Your task to perform on an android device: turn notification dots on Image 0: 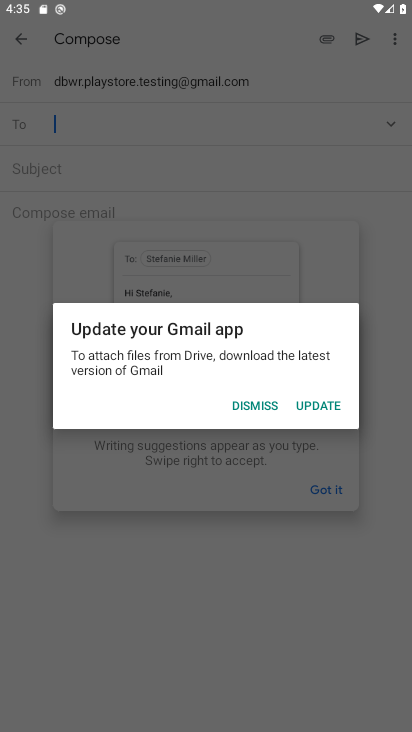
Step 0: press home button
Your task to perform on an android device: turn notification dots on Image 1: 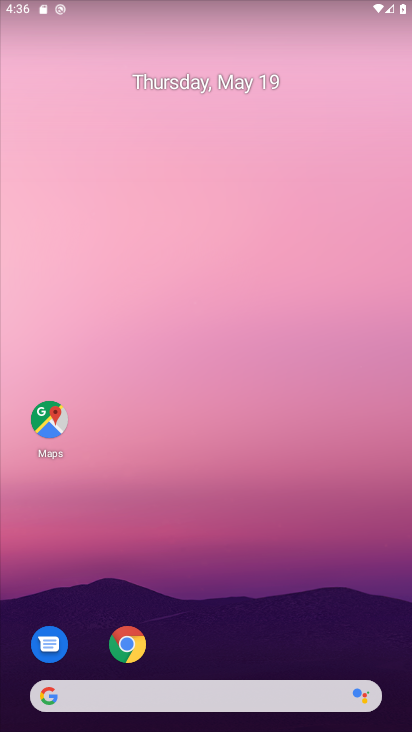
Step 1: drag from (278, 542) to (367, 17)
Your task to perform on an android device: turn notification dots on Image 2: 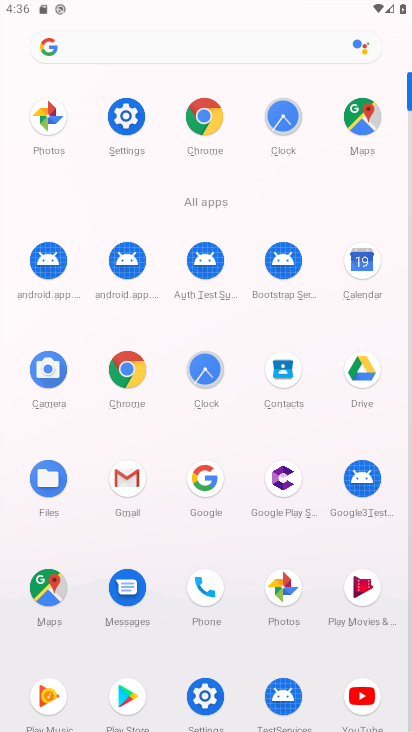
Step 2: click (127, 121)
Your task to perform on an android device: turn notification dots on Image 3: 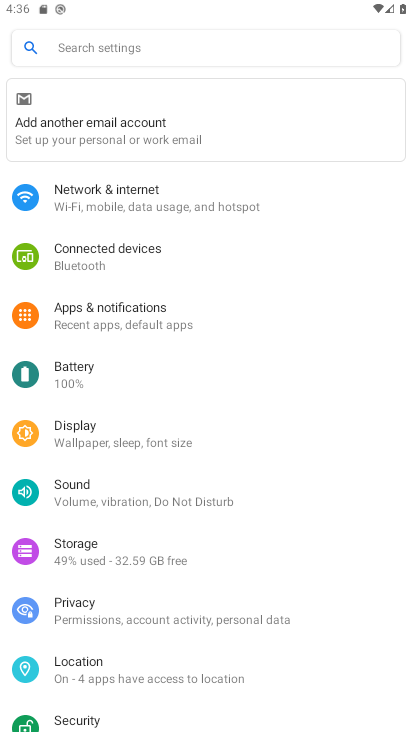
Step 3: click (101, 310)
Your task to perform on an android device: turn notification dots on Image 4: 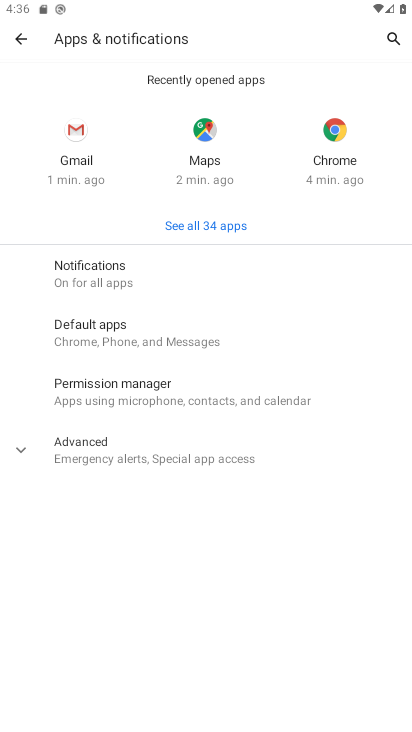
Step 4: click (76, 285)
Your task to perform on an android device: turn notification dots on Image 5: 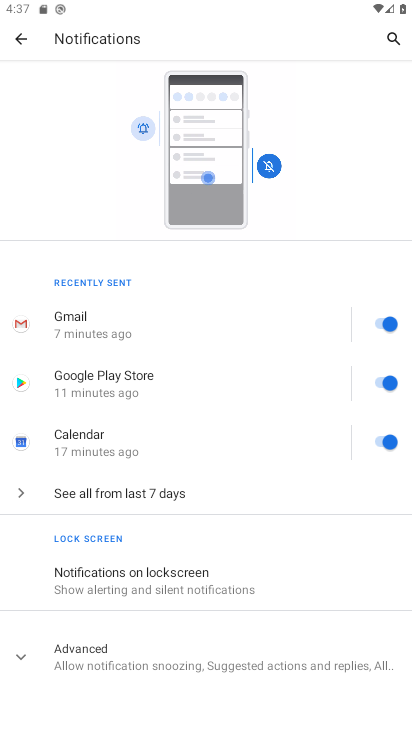
Step 5: drag from (243, 643) to (326, 225)
Your task to perform on an android device: turn notification dots on Image 6: 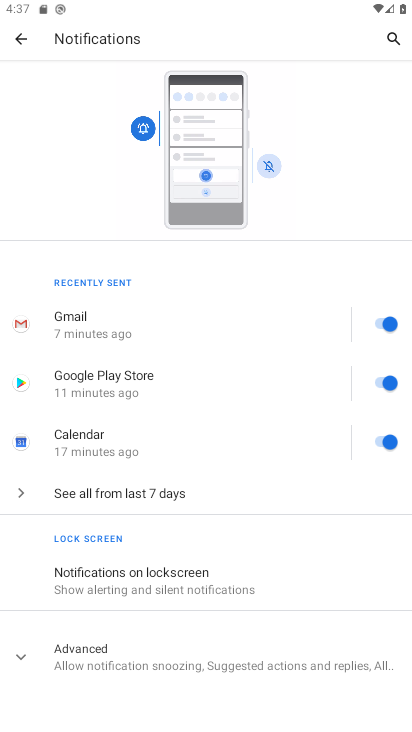
Step 6: click (206, 658)
Your task to perform on an android device: turn notification dots on Image 7: 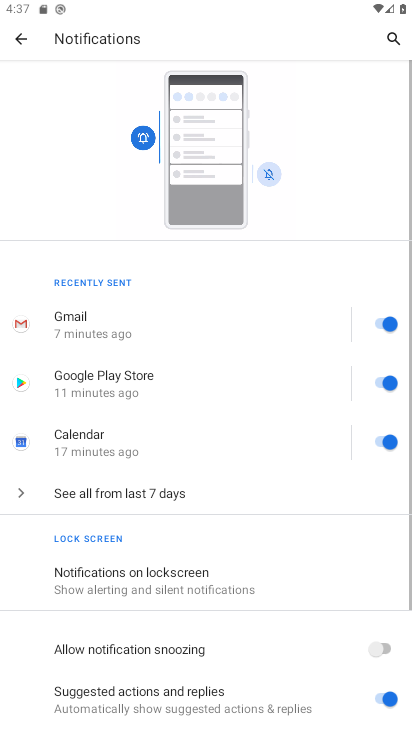
Step 7: drag from (206, 658) to (240, 405)
Your task to perform on an android device: turn notification dots on Image 8: 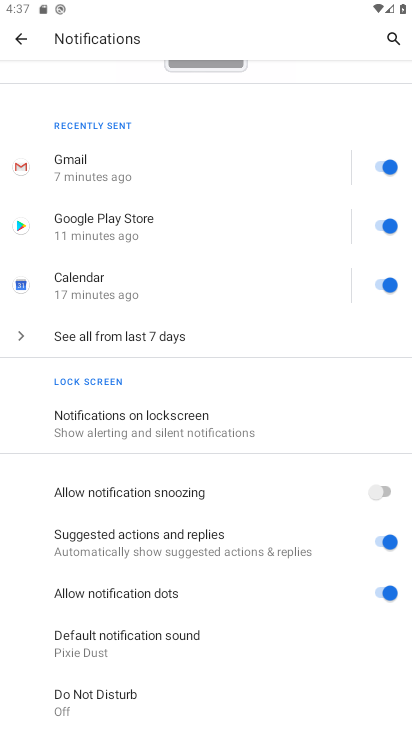
Step 8: click (190, 589)
Your task to perform on an android device: turn notification dots on Image 9: 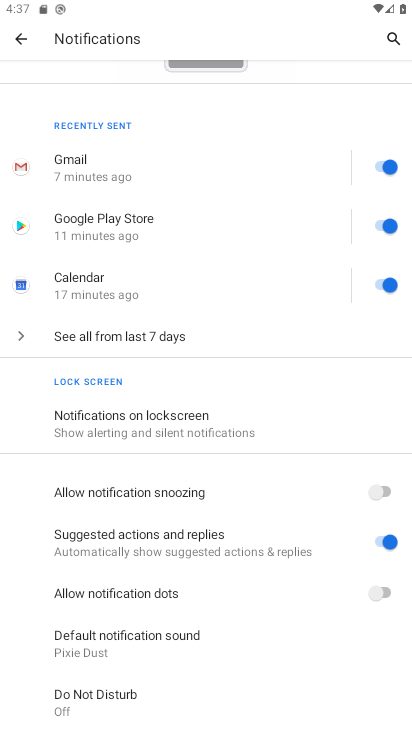
Step 9: click (313, 599)
Your task to perform on an android device: turn notification dots on Image 10: 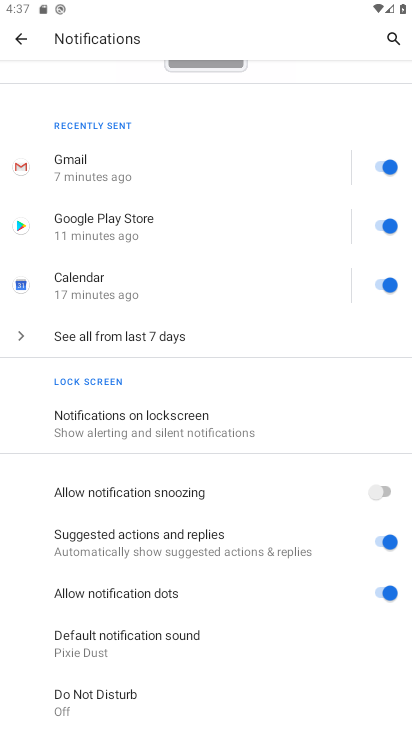
Step 10: task complete